Your task to perform on an android device: open a bookmark in the chrome app Image 0: 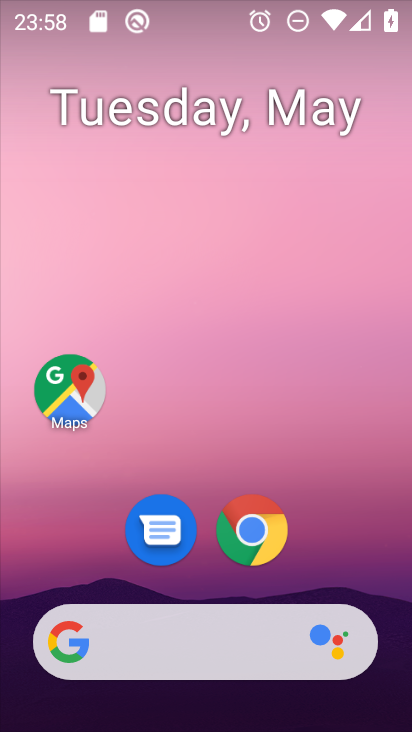
Step 0: click (255, 528)
Your task to perform on an android device: open a bookmark in the chrome app Image 1: 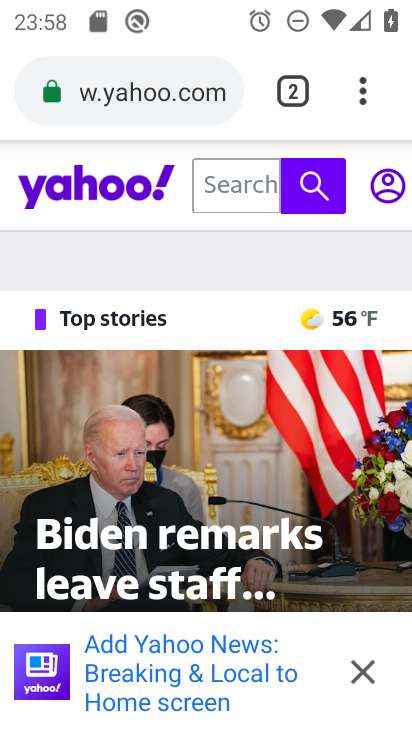
Step 1: drag from (380, 89) to (116, 365)
Your task to perform on an android device: open a bookmark in the chrome app Image 2: 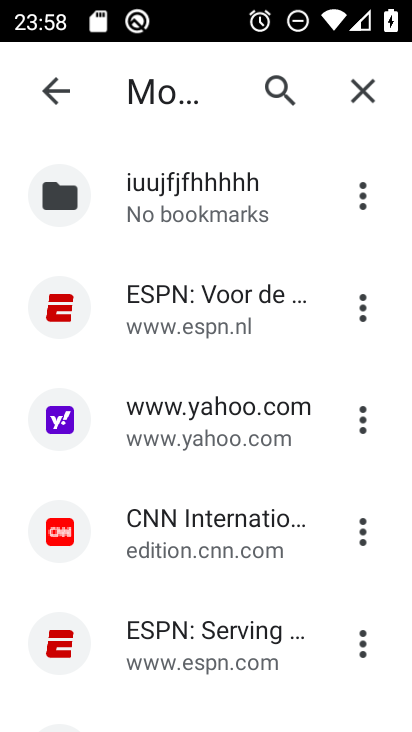
Step 2: click (163, 294)
Your task to perform on an android device: open a bookmark in the chrome app Image 3: 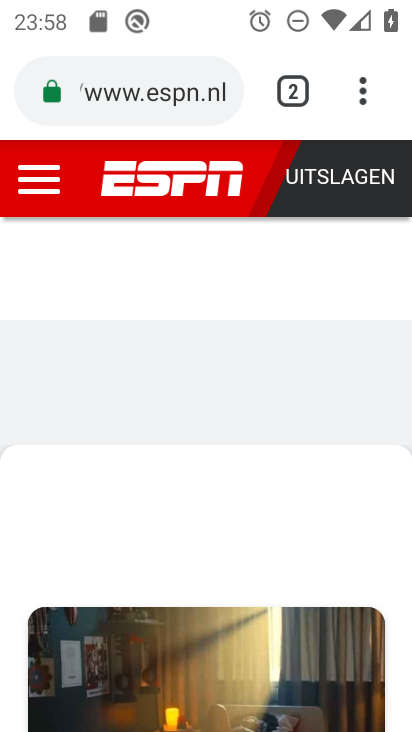
Step 3: task complete